Your task to perform on an android device: Search for the best rated lawnmower on Lowes.com Image 0: 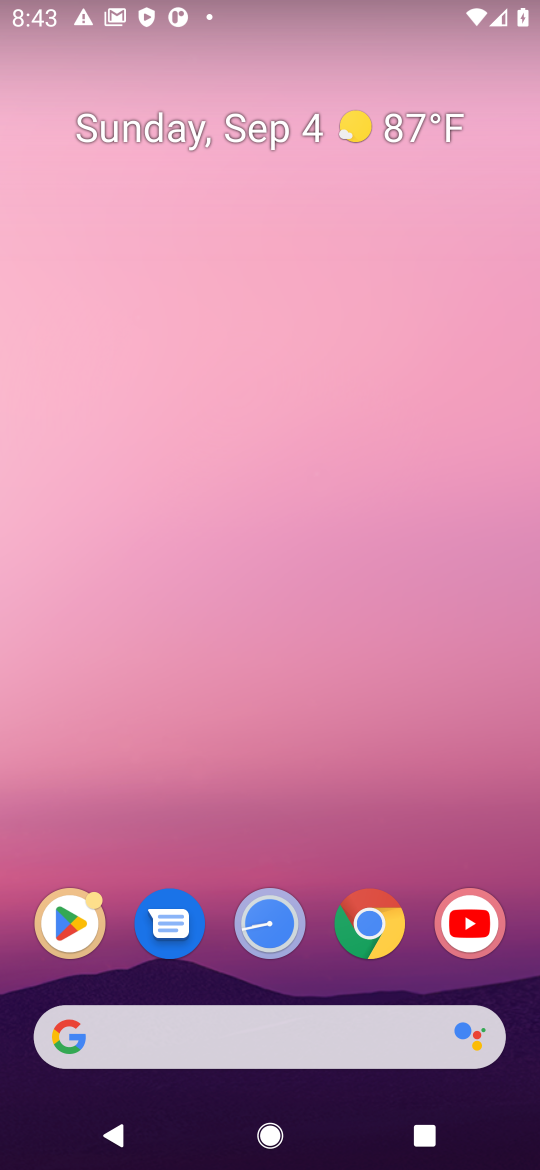
Step 0: press home button
Your task to perform on an android device: Search for the best rated lawnmower on Lowes.com Image 1: 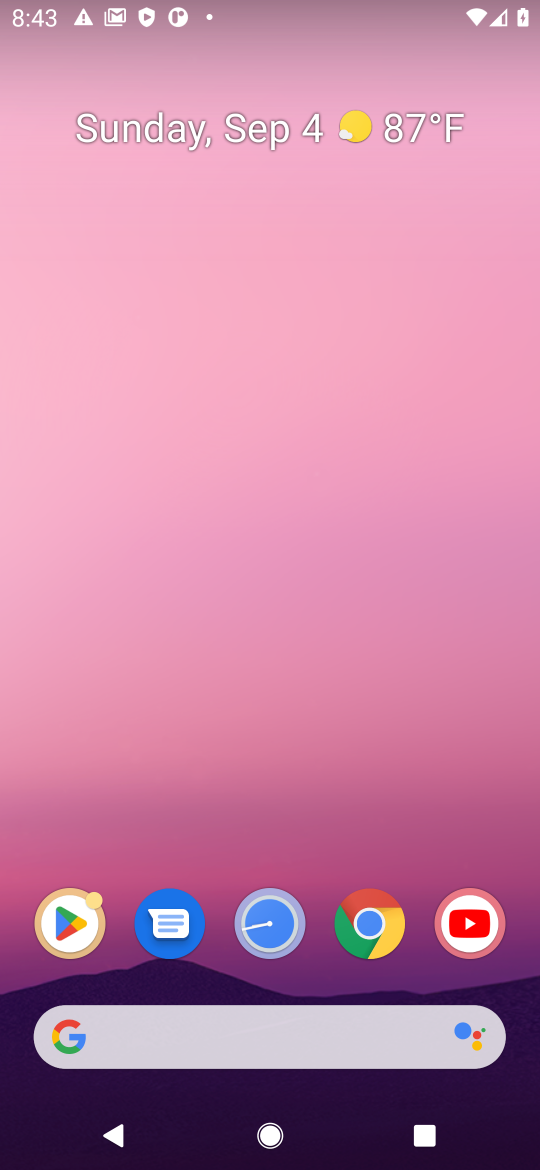
Step 1: click (411, 1032)
Your task to perform on an android device: Search for the best rated lawnmower on Lowes.com Image 2: 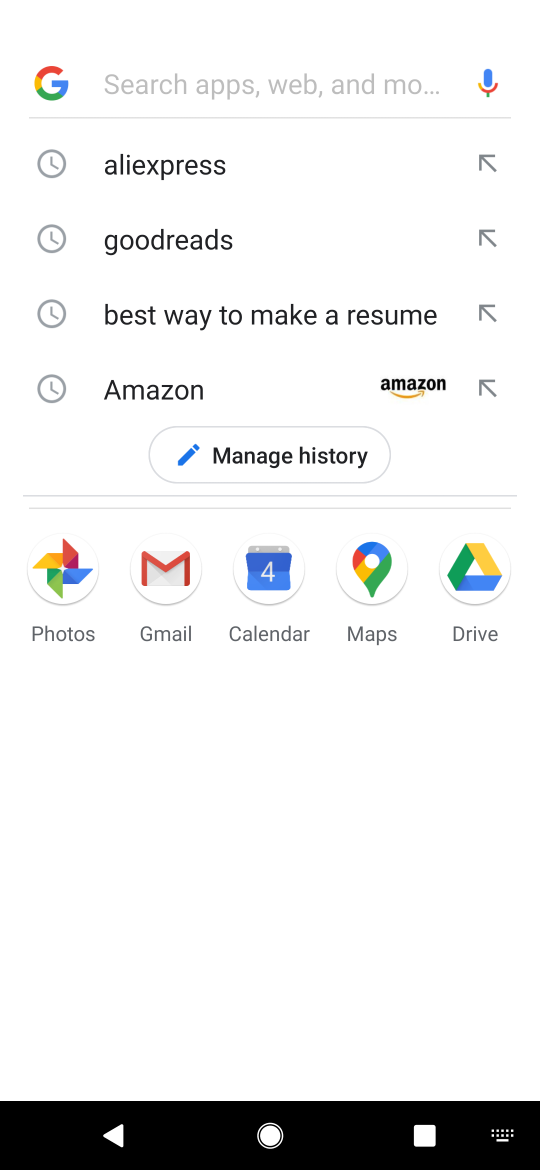
Step 2: press enter
Your task to perform on an android device: Search for the best rated lawnmower on Lowes.com Image 3: 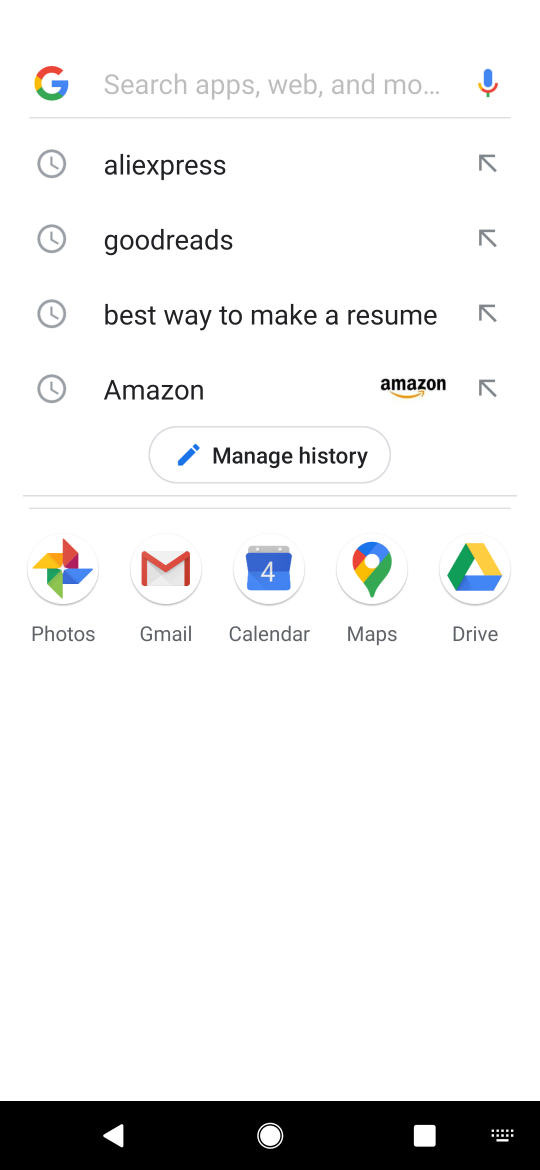
Step 3: type "lowes.com"
Your task to perform on an android device: Search for the best rated lawnmower on Lowes.com Image 4: 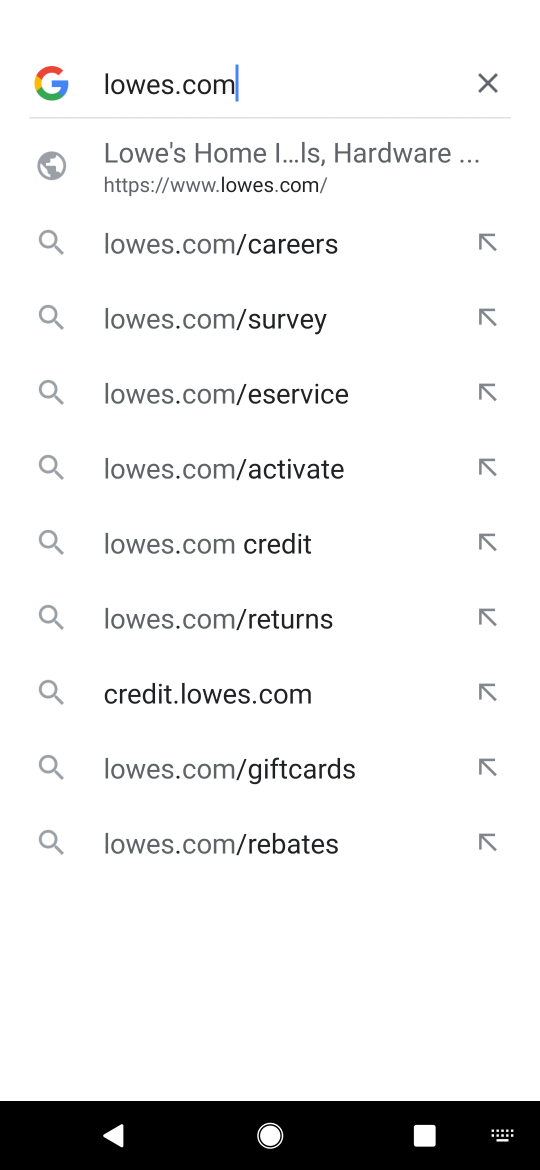
Step 4: click (255, 176)
Your task to perform on an android device: Search for the best rated lawnmower on Lowes.com Image 5: 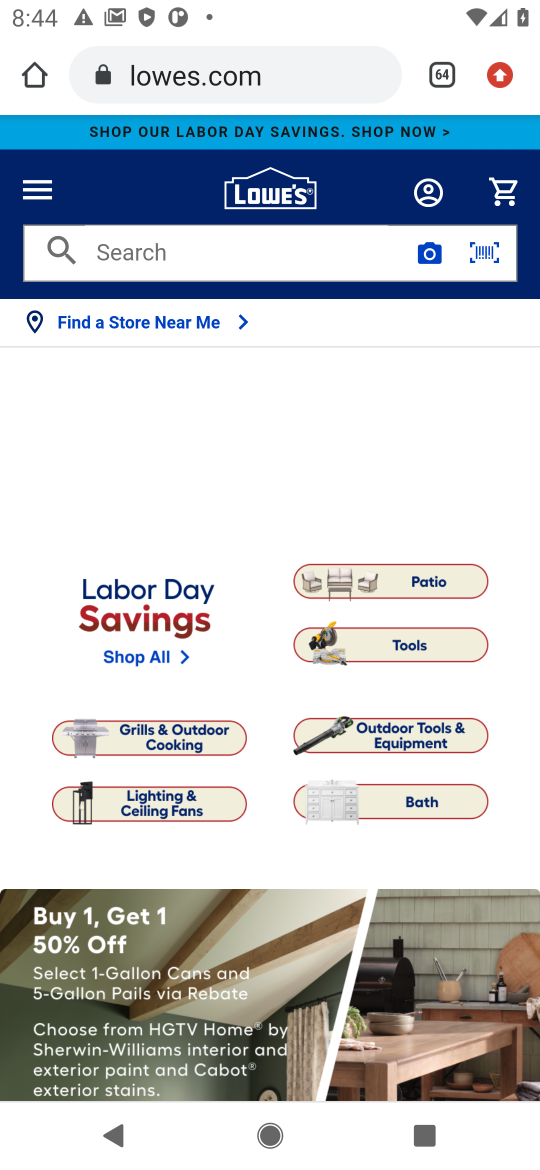
Step 5: click (216, 241)
Your task to perform on an android device: Search for the best rated lawnmower on Lowes.com Image 6: 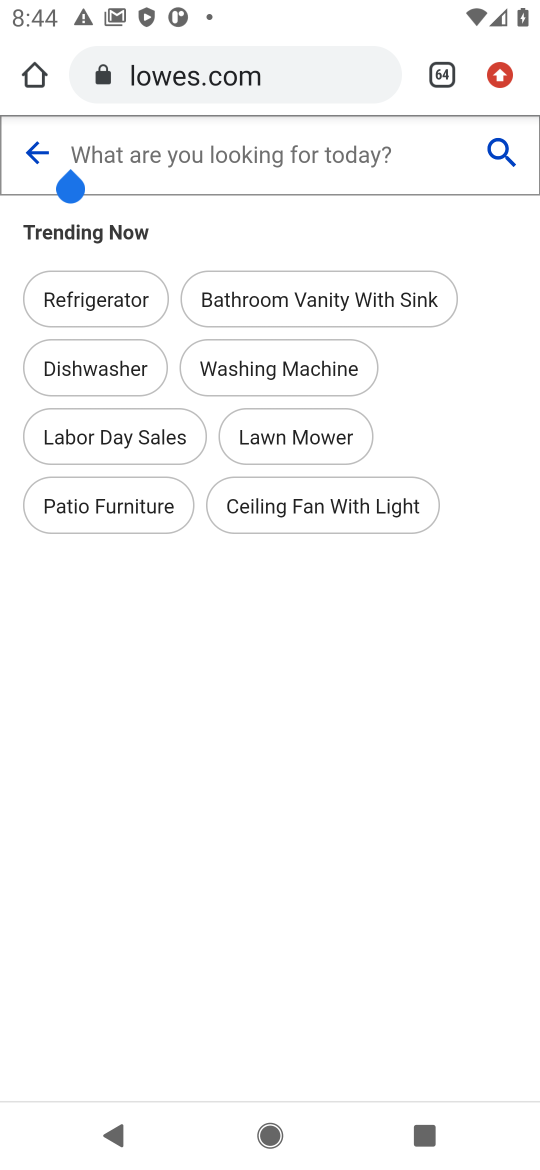
Step 6: type "best rated lawnmower "
Your task to perform on an android device: Search for the best rated lawnmower on Lowes.com Image 7: 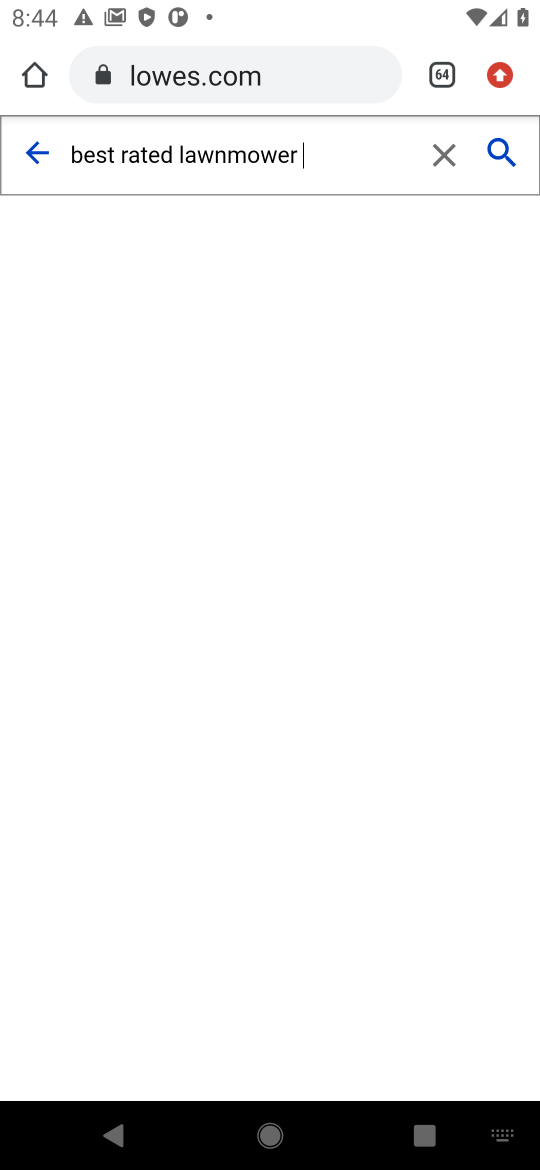
Step 7: press enter
Your task to perform on an android device: Search for the best rated lawnmower on Lowes.com Image 8: 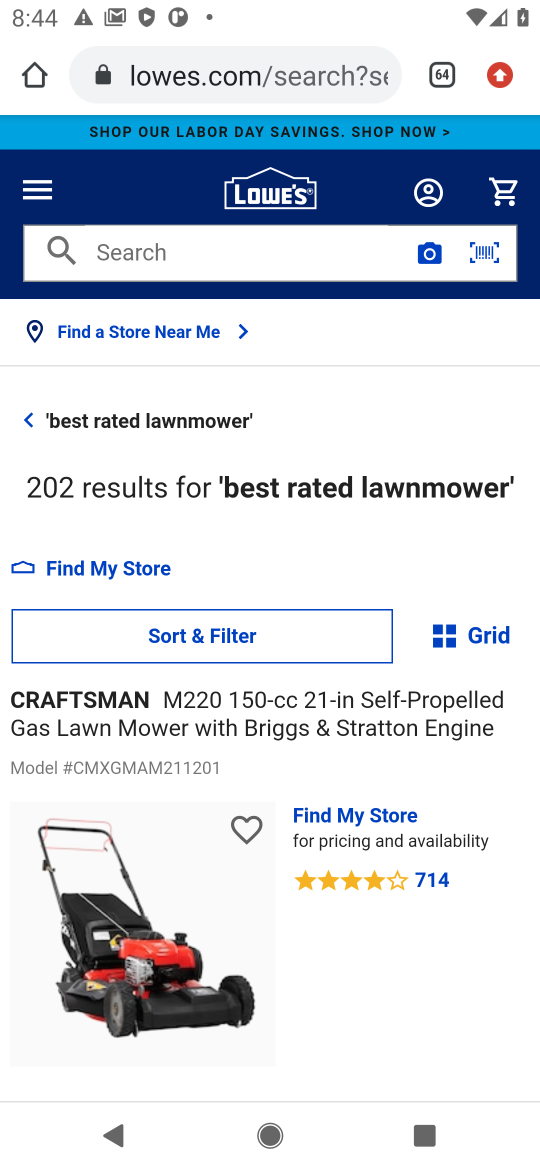
Step 8: task complete